Your task to perform on an android device: toggle sleep mode Image 0: 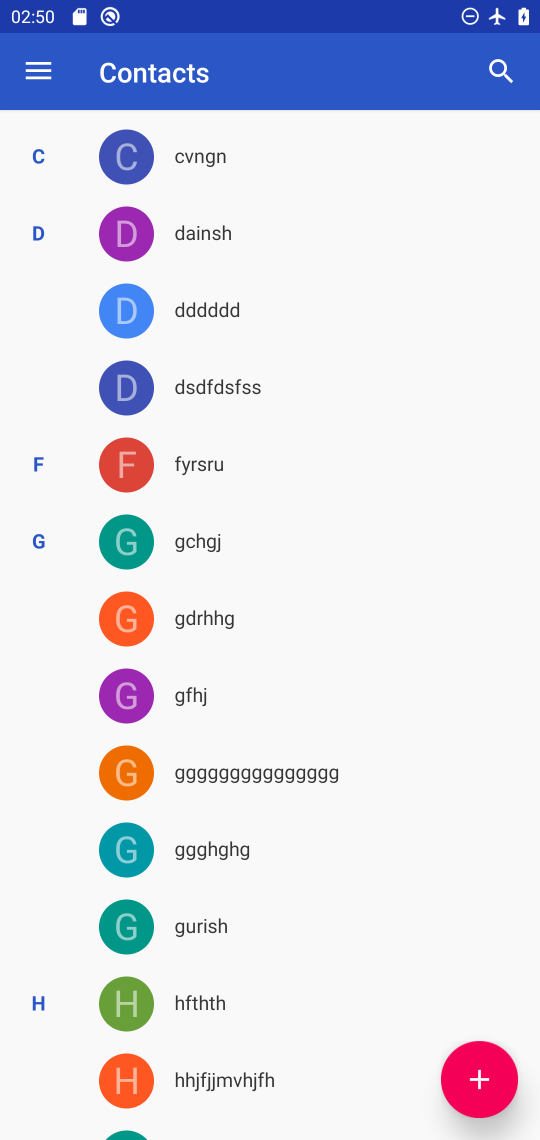
Step 0: press home button
Your task to perform on an android device: toggle sleep mode Image 1: 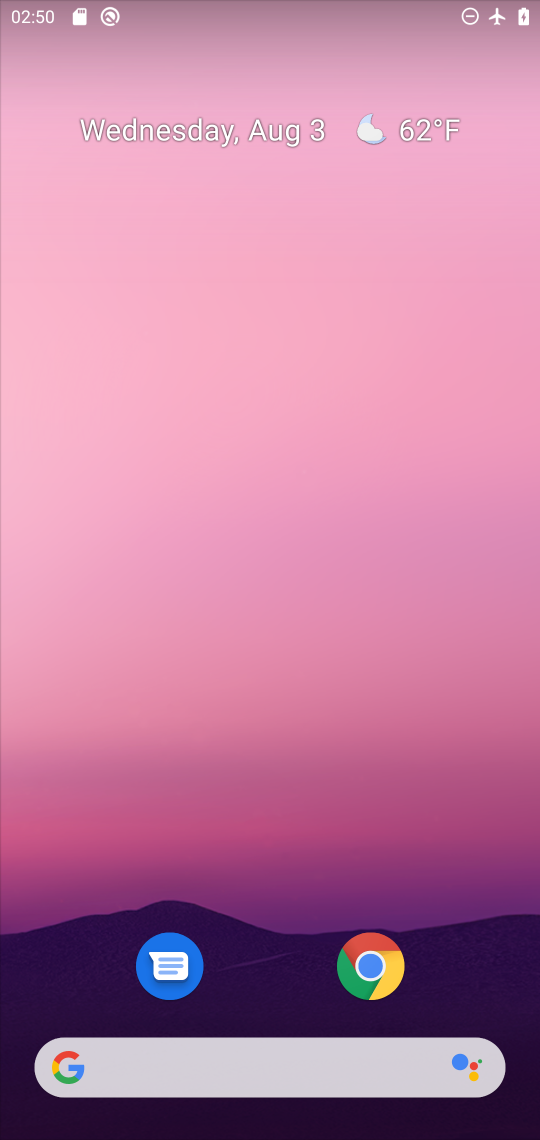
Step 1: drag from (272, 892) to (360, 334)
Your task to perform on an android device: toggle sleep mode Image 2: 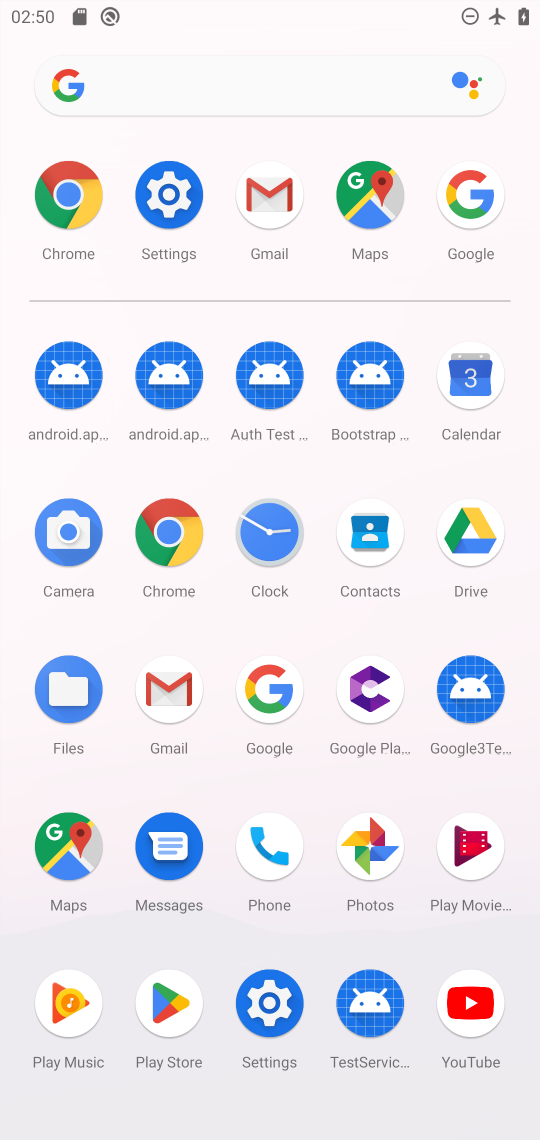
Step 2: click (163, 214)
Your task to perform on an android device: toggle sleep mode Image 3: 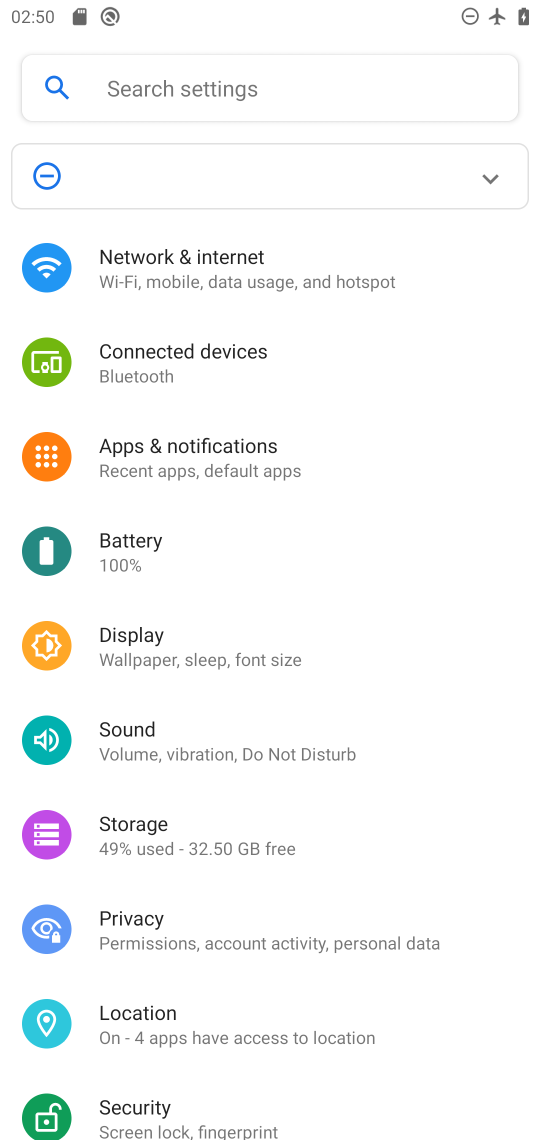
Step 3: click (243, 662)
Your task to perform on an android device: toggle sleep mode Image 4: 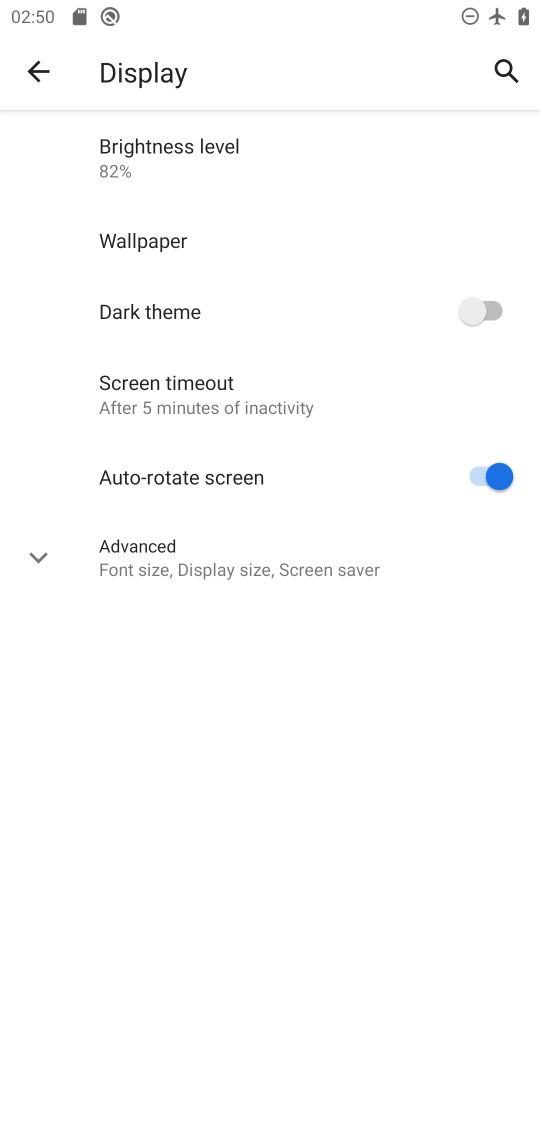
Step 4: click (180, 406)
Your task to perform on an android device: toggle sleep mode Image 5: 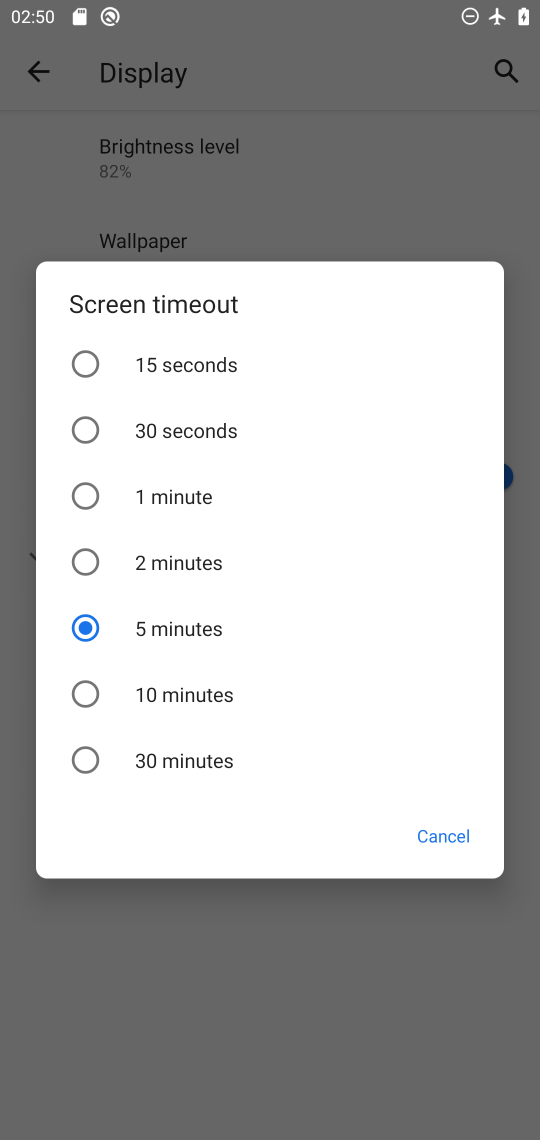
Step 5: click (176, 713)
Your task to perform on an android device: toggle sleep mode Image 6: 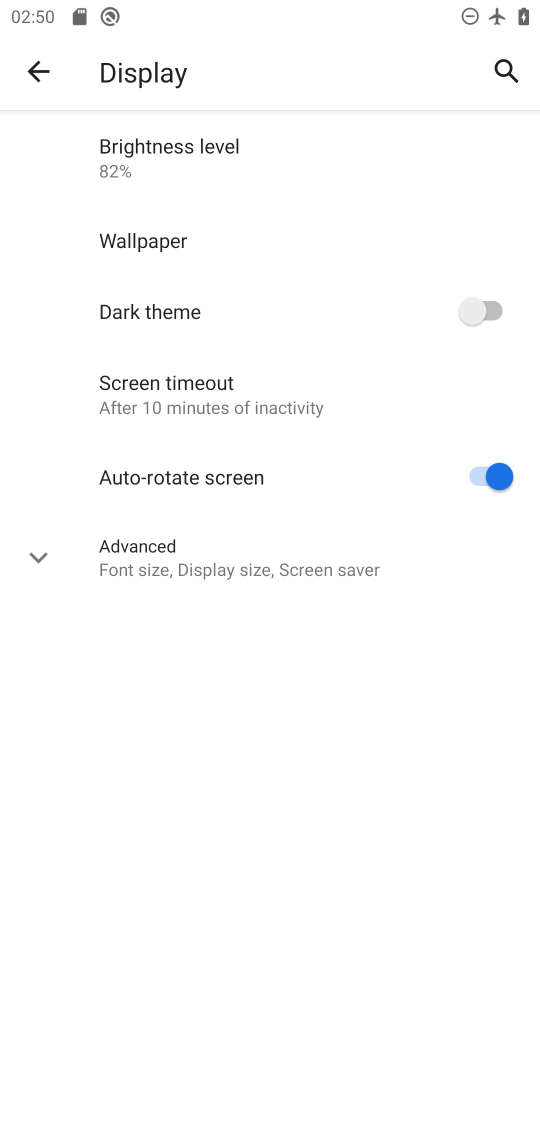
Step 6: task complete